Your task to perform on an android device: Open my contact list Image 0: 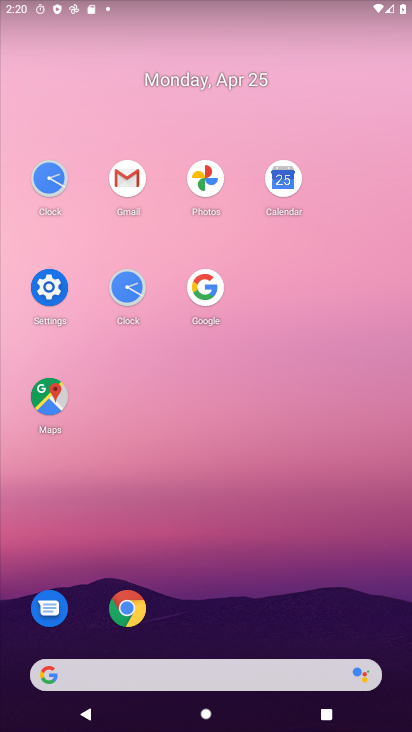
Step 0: drag from (216, 610) to (256, 10)
Your task to perform on an android device: Open my contact list Image 1: 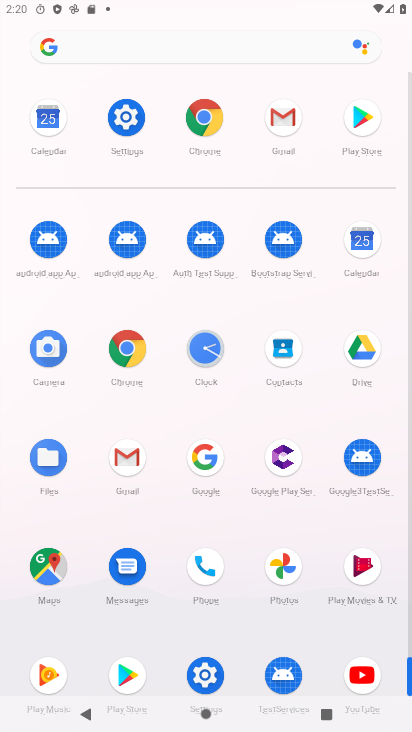
Step 1: drag from (245, 606) to (305, 210)
Your task to perform on an android device: Open my contact list Image 2: 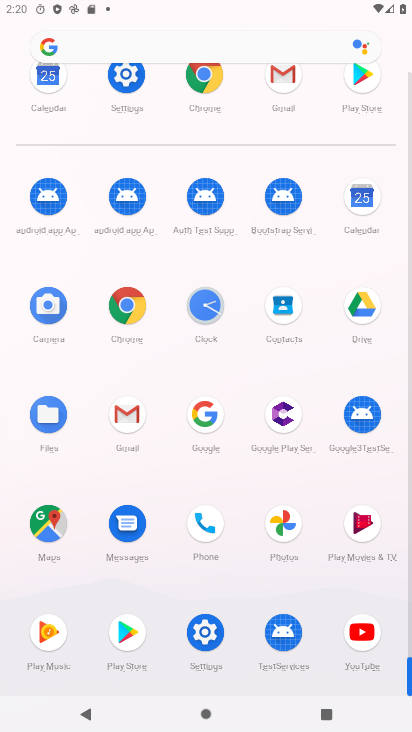
Step 2: click (286, 295)
Your task to perform on an android device: Open my contact list Image 3: 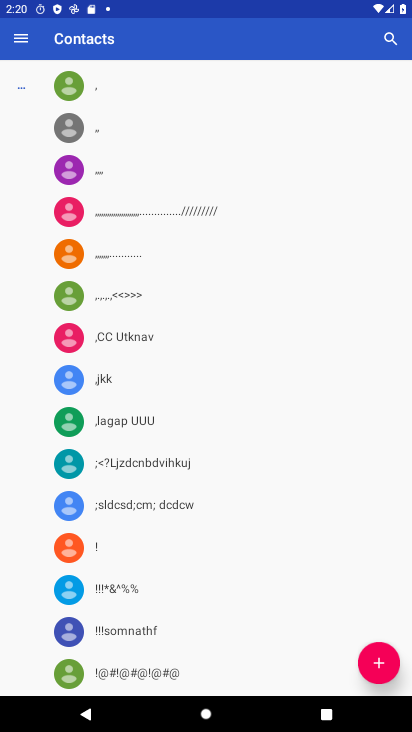
Step 3: task complete